Your task to perform on an android device: turn off javascript in the chrome app Image 0: 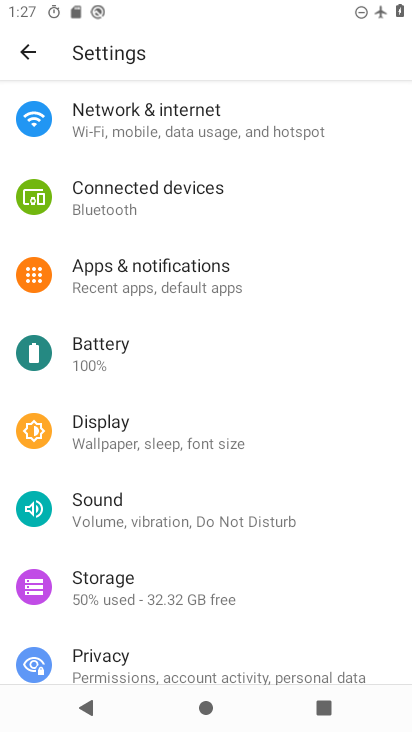
Step 0: press home button
Your task to perform on an android device: turn off javascript in the chrome app Image 1: 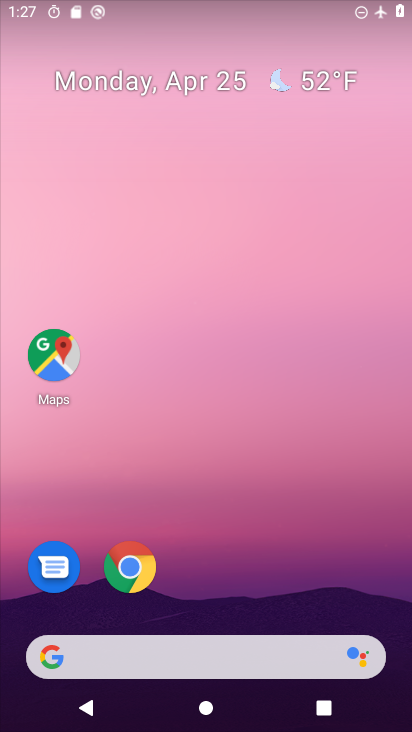
Step 1: click (135, 570)
Your task to perform on an android device: turn off javascript in the chrome app Image 2: 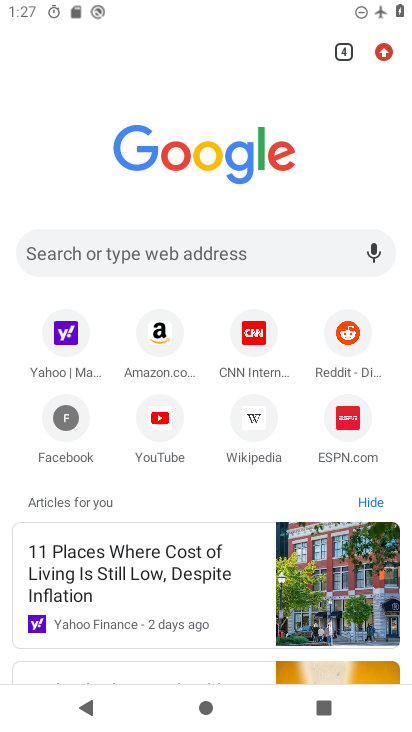
Step 2: click (381, 48)
Your task to perform on an android device: turn off javascript in the chrome app Image 3: 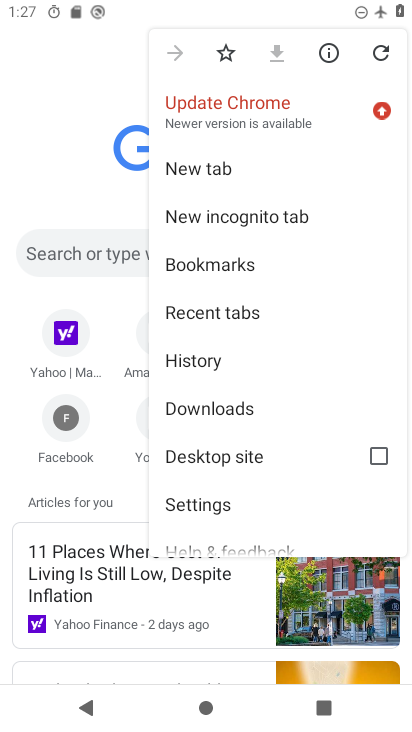
Step 3: click (260, 499)
Your task to perform on an android device: turn off javascript in the chrome app Image 4: 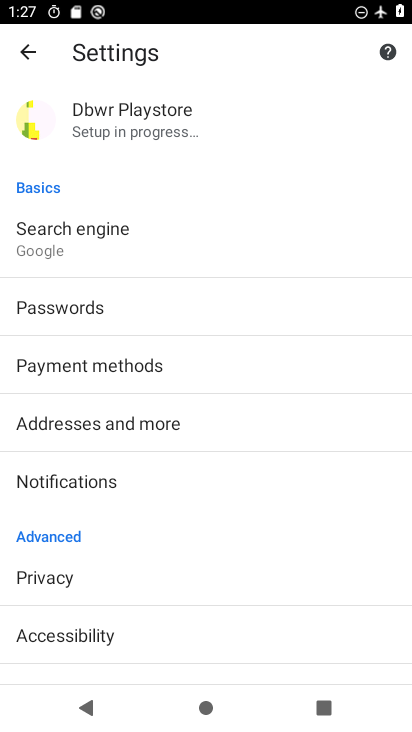
Step 4: drag from (275, 576) to (300, 376)
Your task to perform on an android device: turn off javascript in the chrome app Image 5: 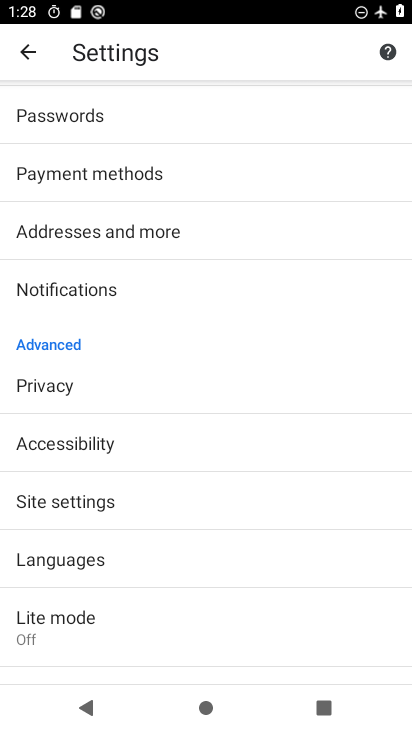
Step 5: click (213, 497)
Your task to perform on an android device: turn off javascript in the chrome app Image 6: 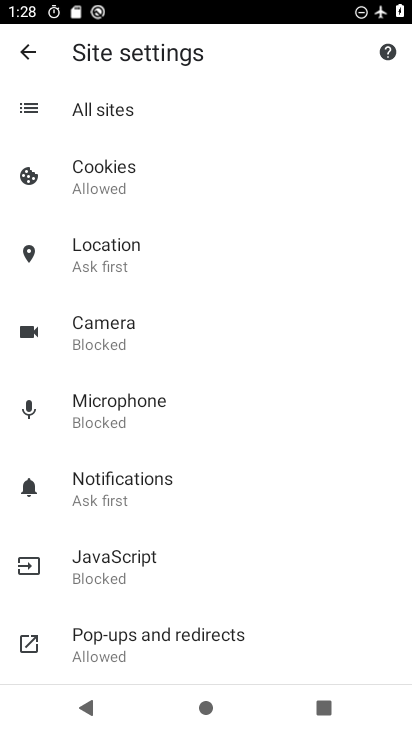
Step 6: click (201, 569)
Your task to perform on an android device: turn off javascript in the chrome app Image 7: 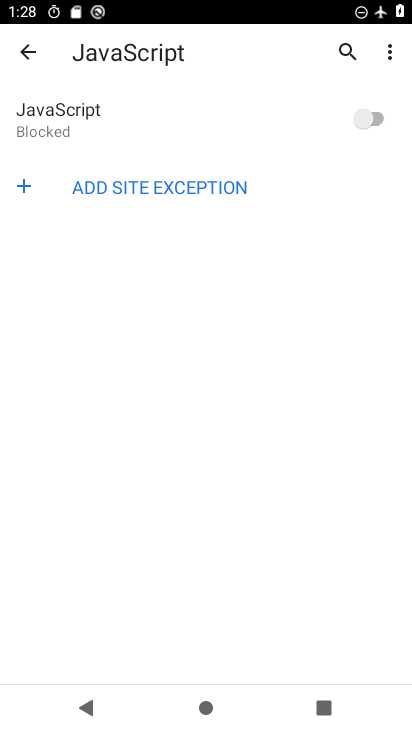
Step 7: task complete